Your task to perform on an android device: Open calendar and show me the first week of next month Image 0: 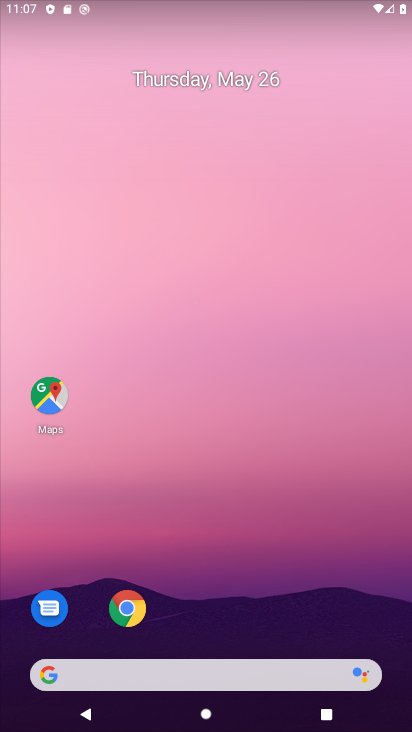
Step 0: drag from (264, 633) to (270, 194)
Your task to perform on an android device: Open calendar and show me the first week of next month Image 1: 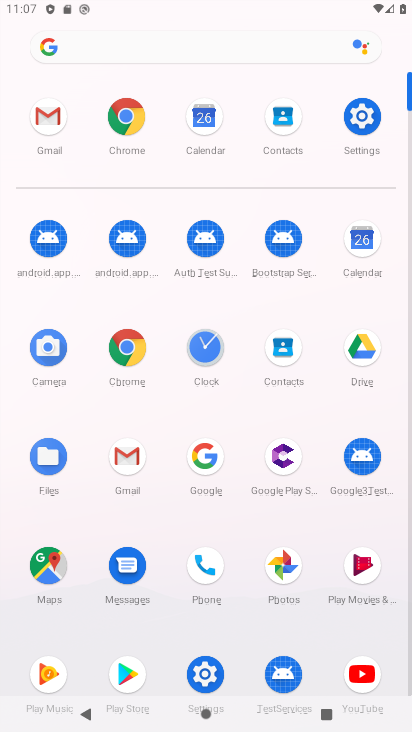
Step 1: click (199, 102)
Your task to perform on an android device: Open calendar and show me the first week of next month Image 2: 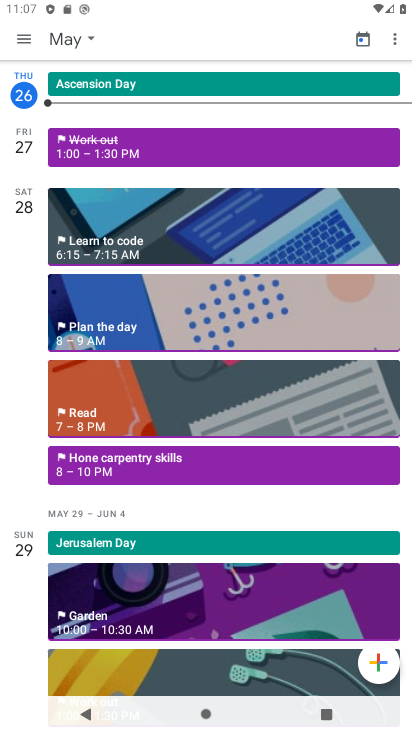
Step 2: click (60, 36)
Your task to perform on an android device: Open calendar and show me the first week of next month Image 3: 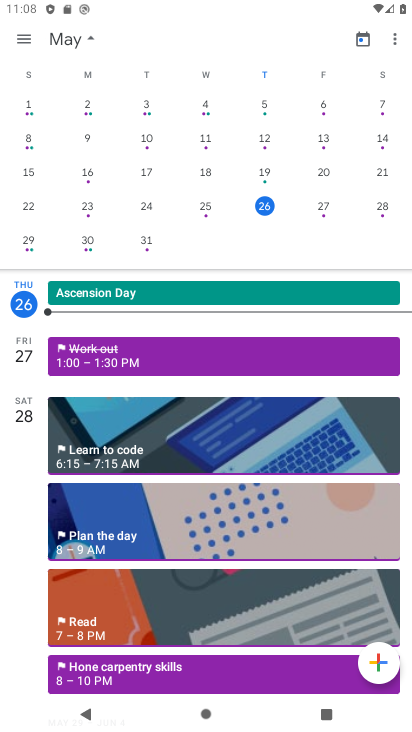
Step 3: drag from (385, 162) to (15, 181)
Your task to perform on an android device: Open calendar and show me the first week of next month Image 4: 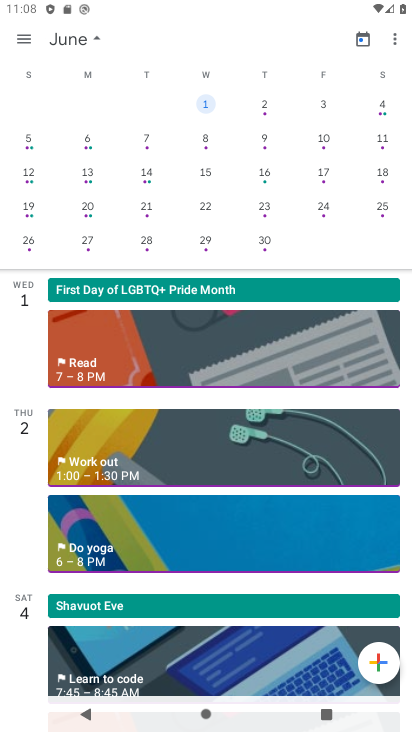
Step 4: click (33, 139)
Your task to perform on an android device: Open calendar and show me the first week of next month Image 5: 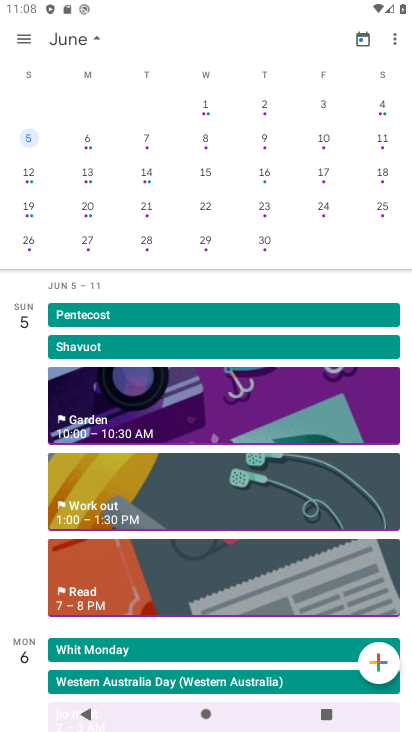
Step 5: click (25, 32)
Your task to perform on an android device: Open calendar and show me the first week of next month Image 6: 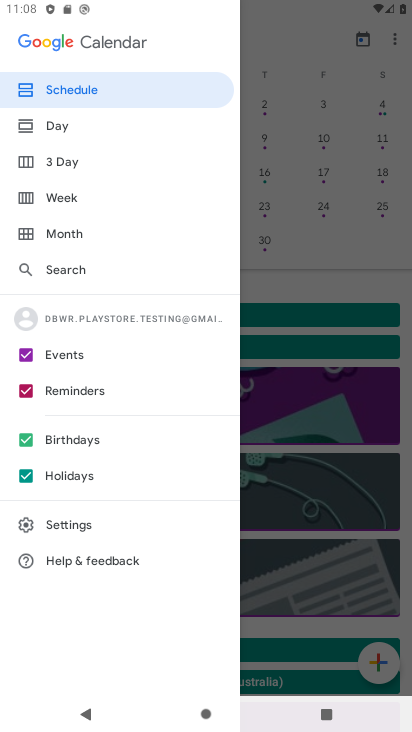
Step 6: click (64, 189)
Your task to perform on an android device: Open calendar and show me the first week of next month Image 7: 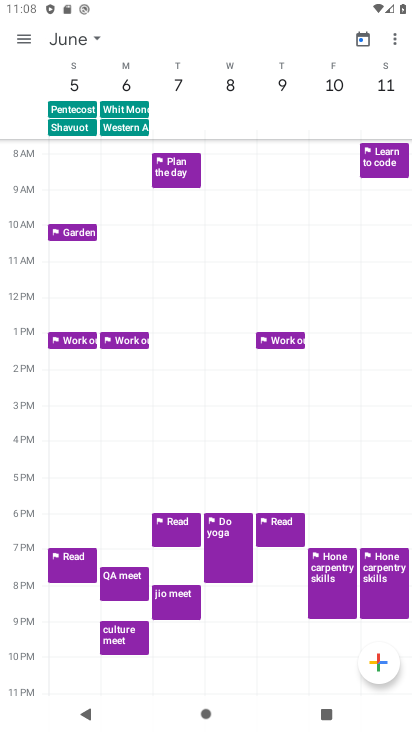
Step 7: task complete